Your task to perform on an android device: Go to sound settings Image 0: 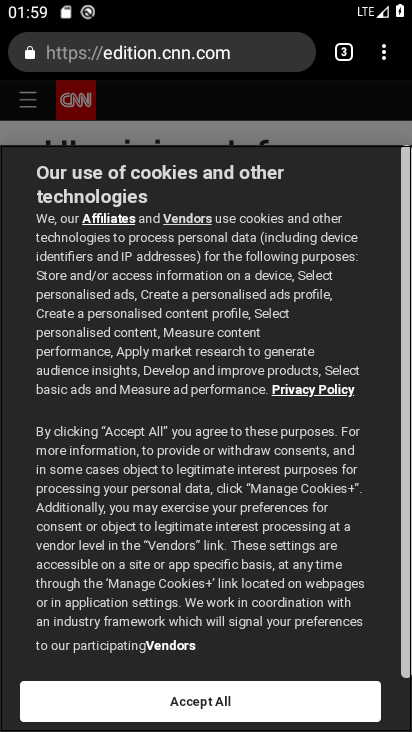
Step 0: press home button
Your task to perform on an android device: Go to sound settings Image 1: 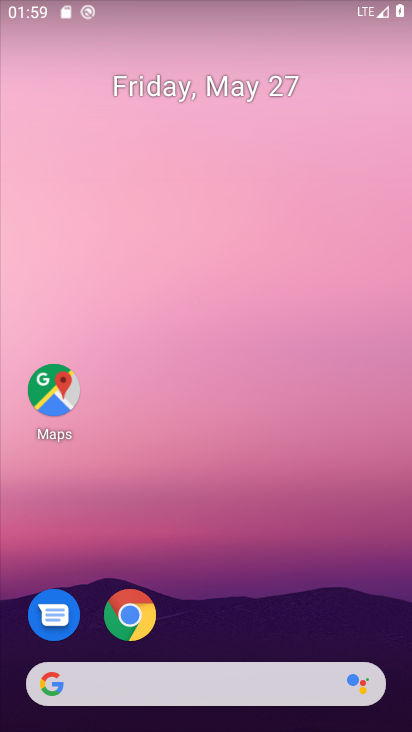
Step 1: drag from (354, 567) to (354, 178)
Your task to perform on an android device: Go to sound settings Image 2: 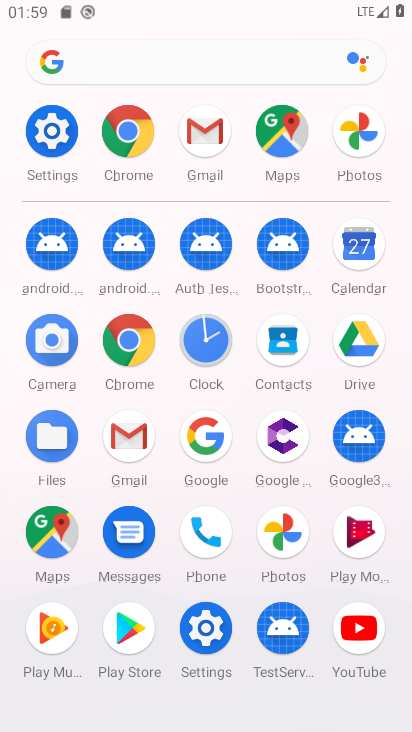
Step 2: click (211, 640)
Your task to perform on an android device: Go to sound settings Image 3: 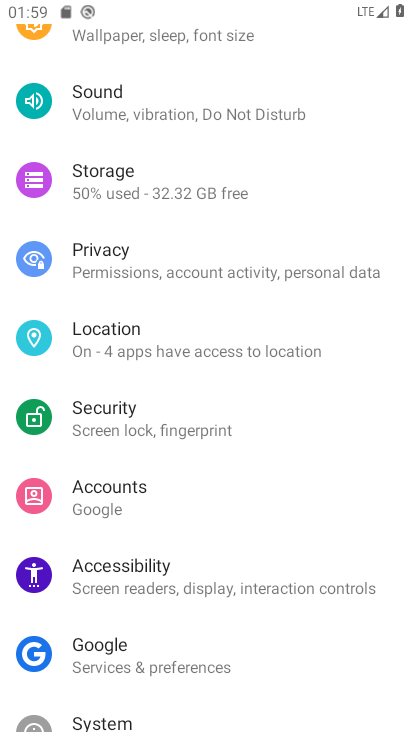
Step 3: drag from (342, 218) to (341, 318)
Your task to perform on an android device: Go to sound settings Image 4: 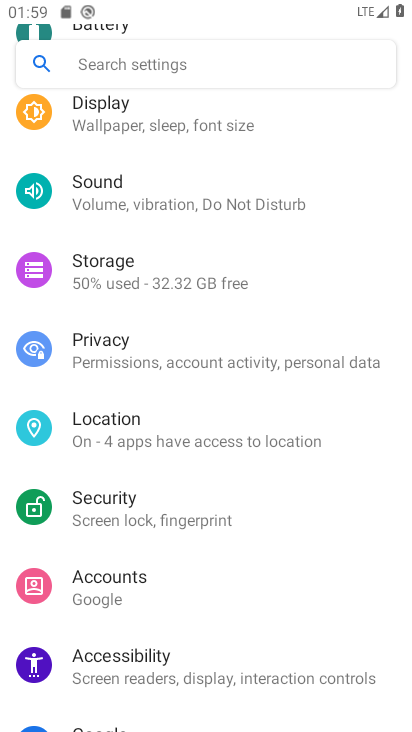
Step 4: drag from (350, 210) to (350, 327)
Your task to perform on an android device: Go to sound settings Image 5: 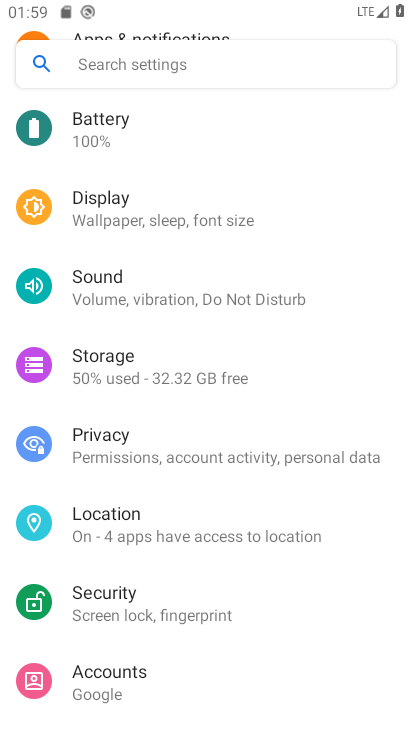
Step 5: drag from (349, 181) to (356, 356)
Your task to perform on an android device: Go to sound settings Image 6: 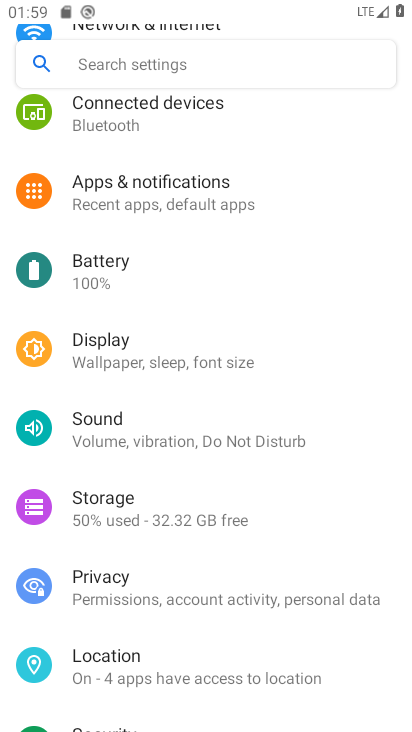
Step 6: drag from (344, 194) to (344, 316)
Your task to perform on an android device: Go to sound settings Image 7: 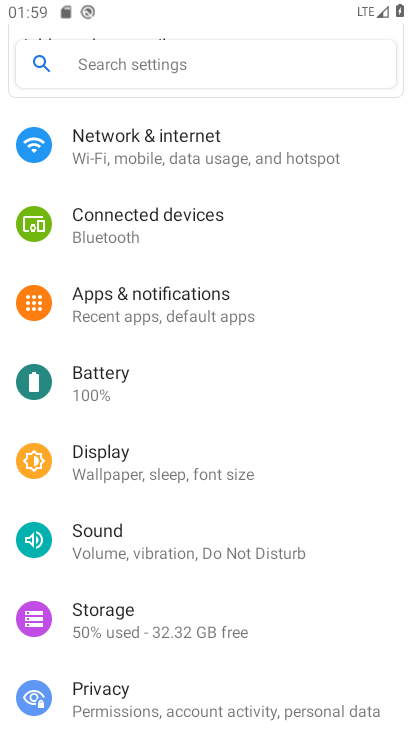
Step 7: drag from (341, 202) to (340, 312)
Your task to perform on an android device: Go to sound settings Image 8: 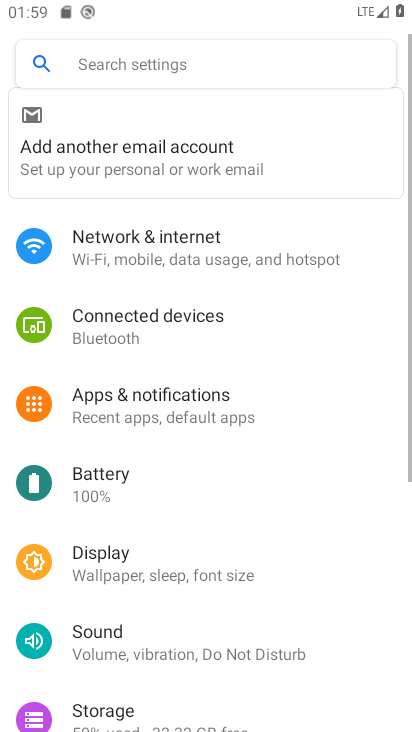
Step 8: drag from (340, 363) to (339, 258)
Your task to perform on an android device: Go to sound settings Image 9: 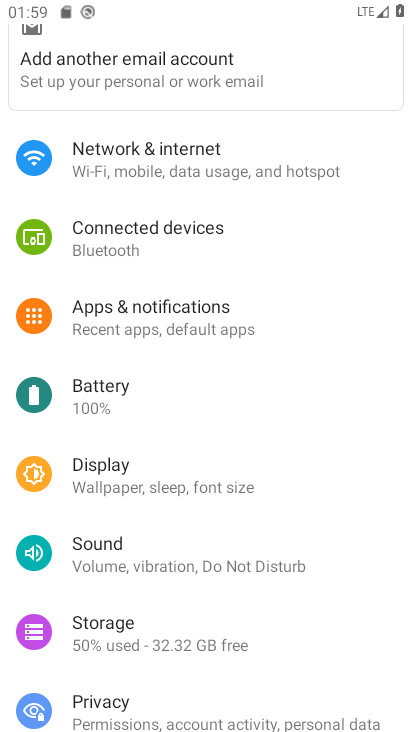
Step 9: drag from (333, 345) to (333, 248)
Your task to perform on an android device: Go to sound settings Image 10: 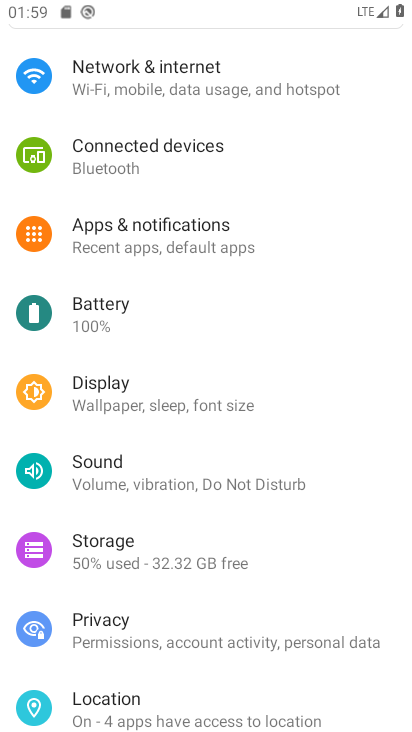
Step 10: drag from (328, 351) to (328, 257)
Your task to perform on an android device: Go to sound settings Image 11: 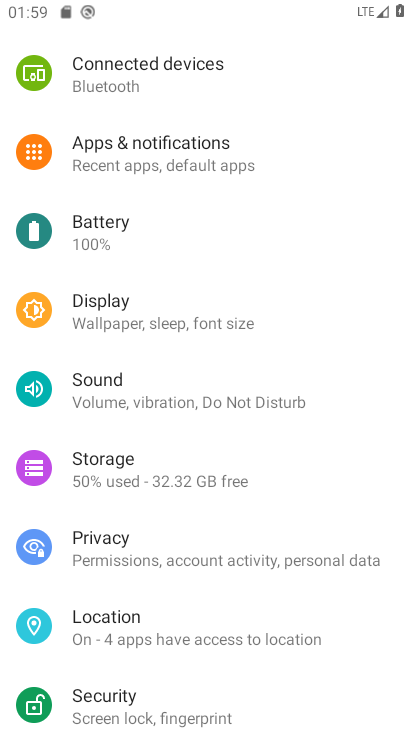
Step 11: drag from (337, 357) to (339, 261)
Your task to perform on an android device: Go to sound settings Image 12: 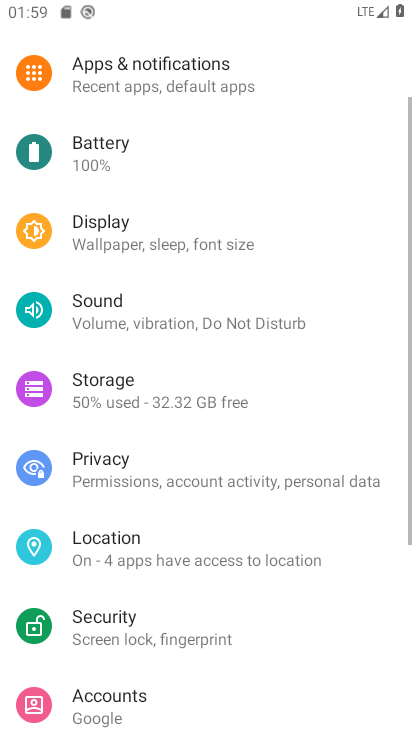
Step 12: drag from (348, 400) to (349, 227)
Your task to perform on an android device: Go to sound settings Image 13: 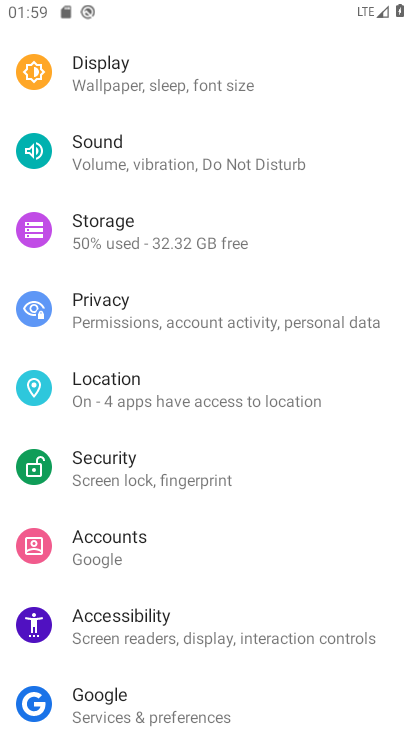
Step 13: drag from (352, 407) to (363, 256)
Your task to perform on an android device: Go to sound settings Image 14: 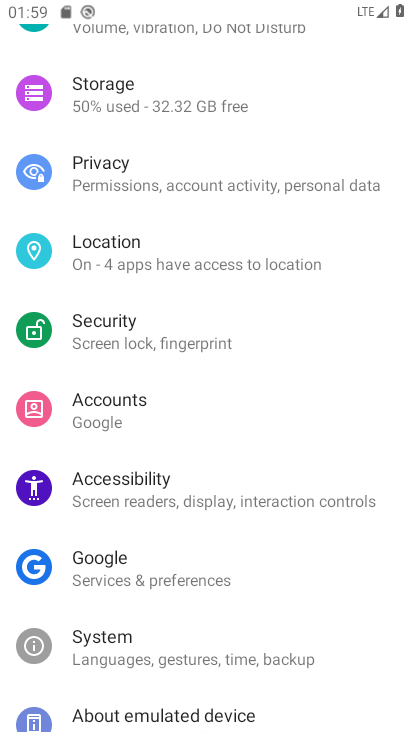
Step 14: drag from (372, 431) to (354, 301)
Your task to perform on an android device: Go to sound settings Image 15: 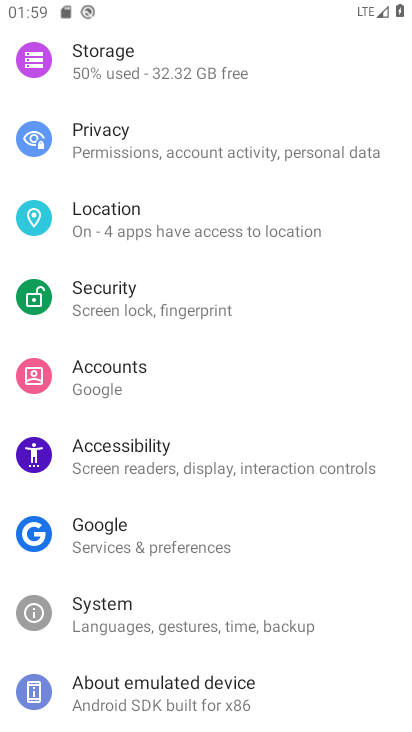
Step 15: drag from (348, 185) to (338, 324)
Your task to perform on an android device: Go to sound settings Image 16: 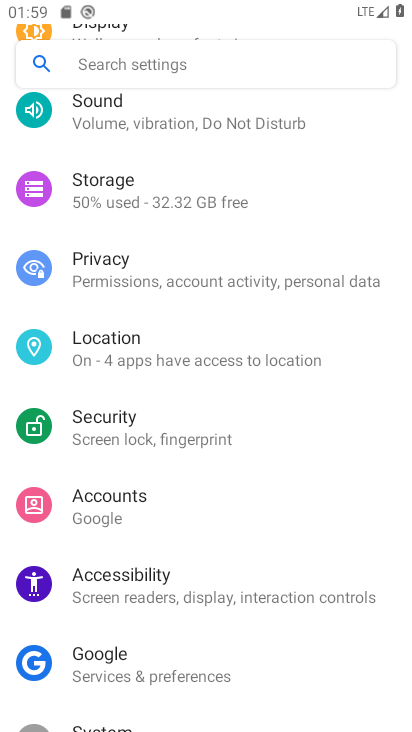
Step 16: click (313, 131)
Your task to perform on an android device: Go to sound settings Image 17: 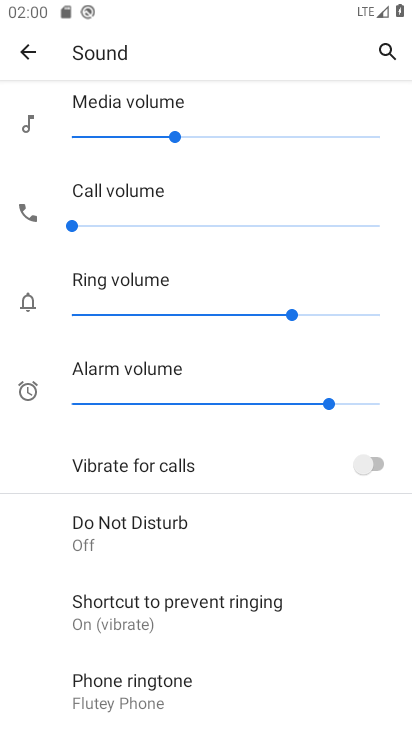
Step 17: task complete